Your task to perform on an android device: Do I have any events this weekend? Image 0: 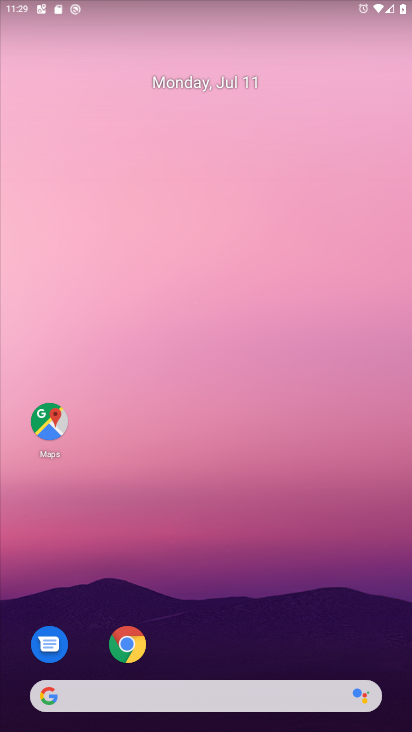
Step 0: drag from (366, 618) to (383, 132)
Your task to perform on an android device: Do I have any events this weekend? Image 1: 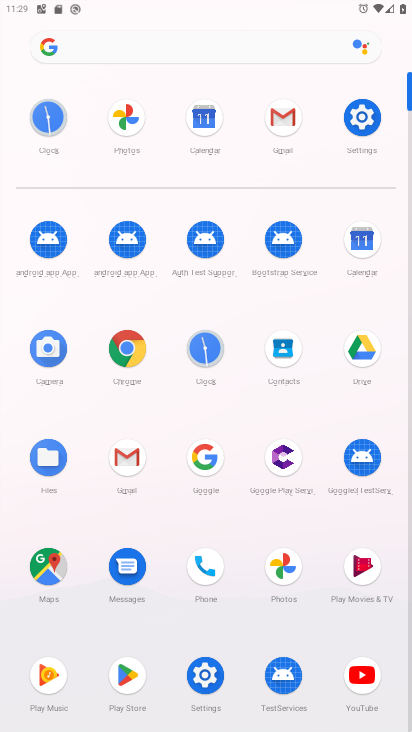
Step 1: click (206, 119)
Your task to perform on an android device: Do I have any events this weekend? Image 2: 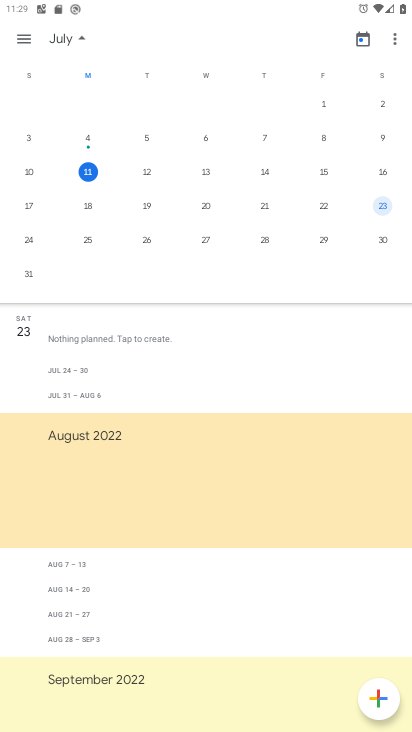
Step 2: click (374, 174)
Your task to perform on an android device: Do I have any events this weekend? Image 3: 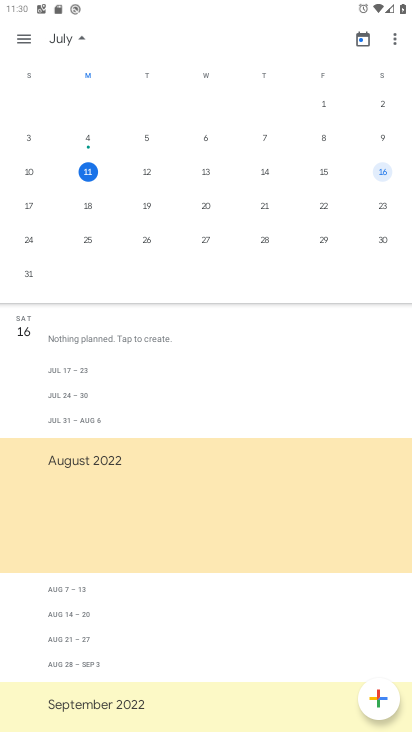
Step 3: click (38, 202)
Your task to perform on an android device: Do I have any events this weekend? Image 4: 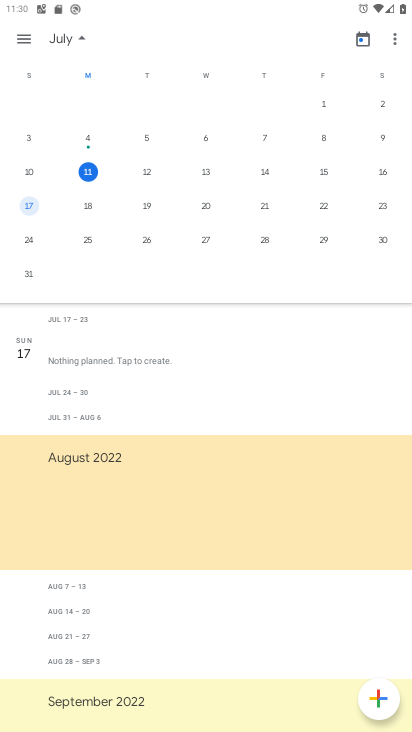
Step 4: task complete